Your task to perform on an android device: Turn on the flashlight Image 0: 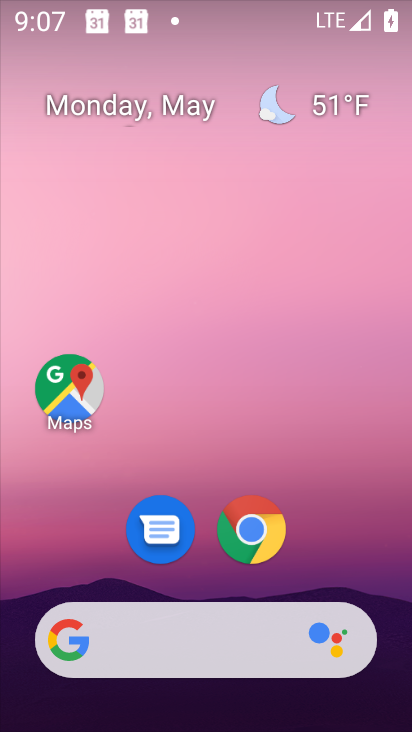
Step 0: press back button
Your task to perform on an android device: Turn on the flashlight Image 1: 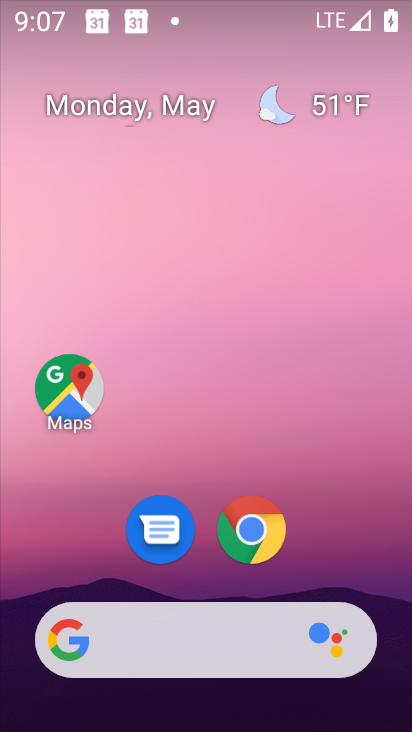
Step 1: drag from (260, 259) to (363, 101)
Your task to perform on an android device: Turn on the flashlight Image 2: 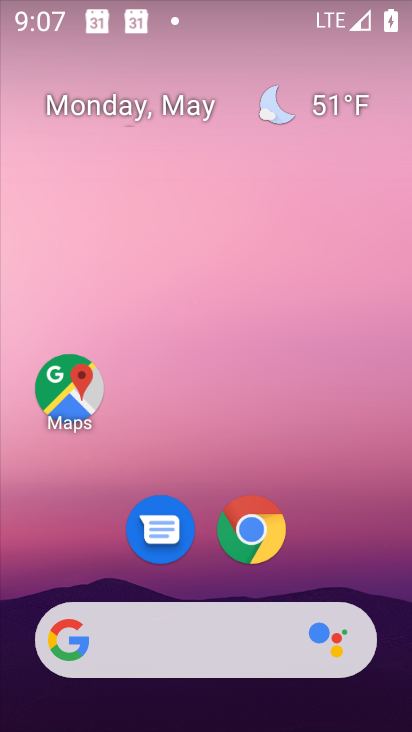
Step 2: press back button
Your task to perform on an android device: Turn on the flashlight Image 3: 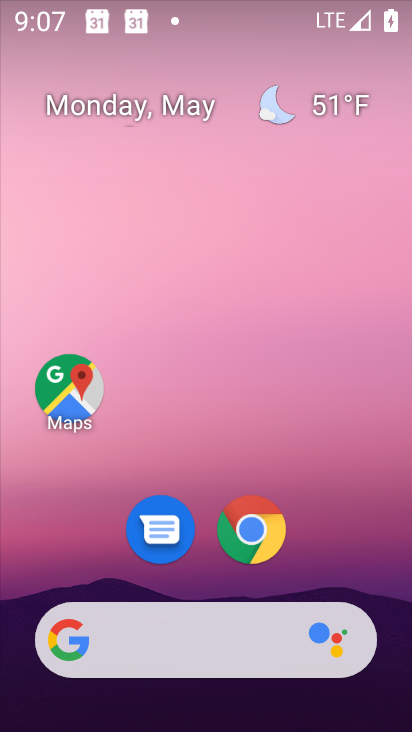
Step 3: press back button
Your task to perform on an android device: Turn on the flashlight Image 4: 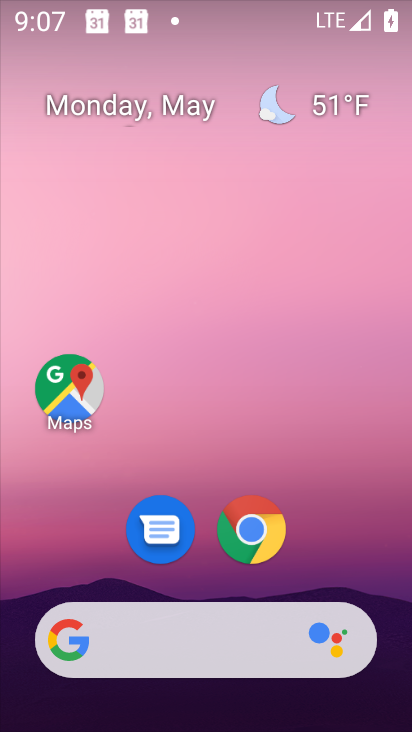
Step 4: press back button
Your task to perform on an android device: Turn on the flashlight Image 5: 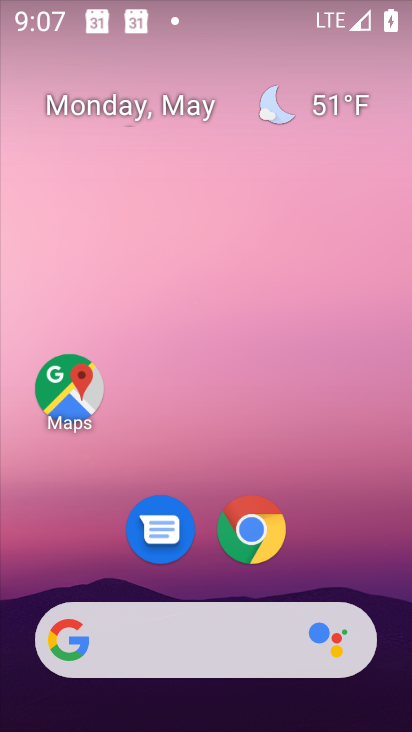
Step 5: drag from (41, 411) to (164, 130)
Your task to perform on an android device: Turn on the flashlight Image 6: 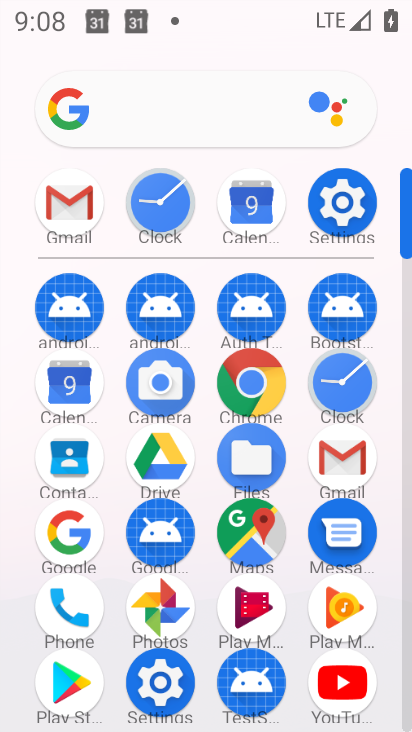
Step 6: click (341, 207)
Your task to perform on an android device: Turn on the flashlight Image 7: 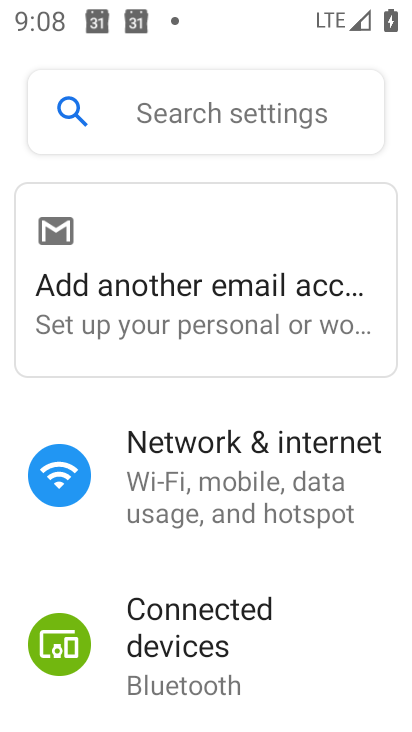
Step 7: task complete